Your task to perform on an android device: Search for sushi restaurants on Maps Image 0: 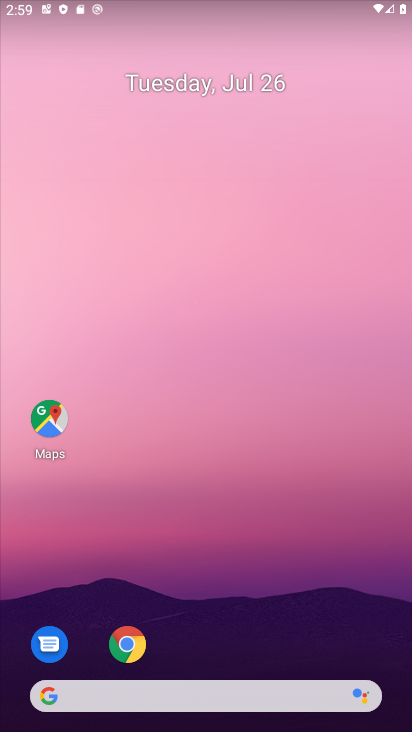
Step 0: click (44, 414)
Your task to perform on an android device: Search for sushi restaurants on Maps Image 1: 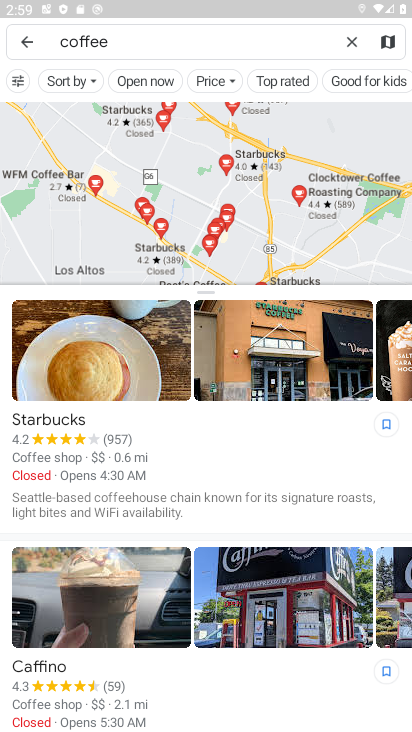
Step 1: click (20, 38)
Your task to perform on an android device: Search for sushi restaurants on Maps Image 2: 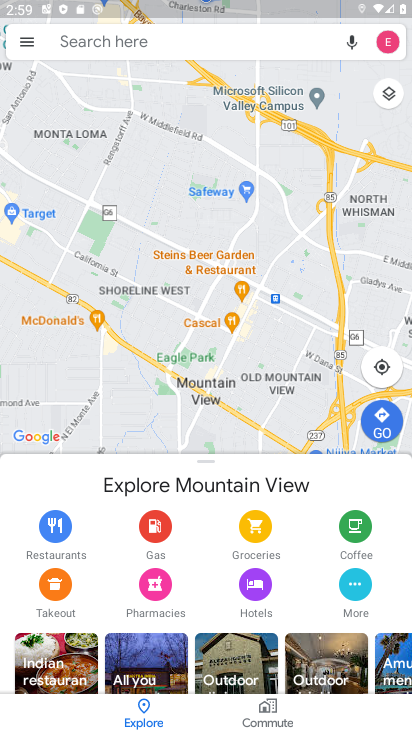
Step 2: type "sushi restaurants"
Your task to perform on an android device: Search for sushi restaurants on Maps Image 3: 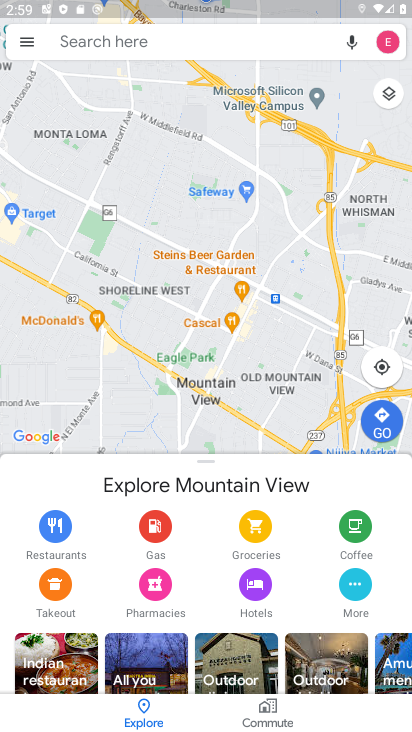
Step 3: click (124, 48)
Your task to perform on an android device: Search for sushi restaurants on Maps Image 4: 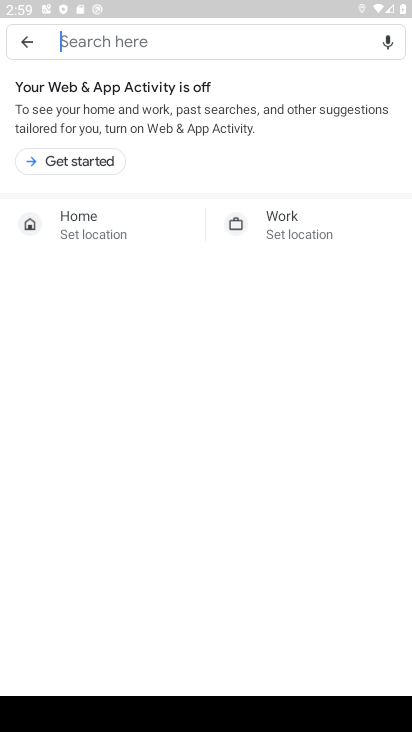
Step 4: click (139, 34)
Your task to perform on an android device: Search for sushi restaurants on Maps Image 5: 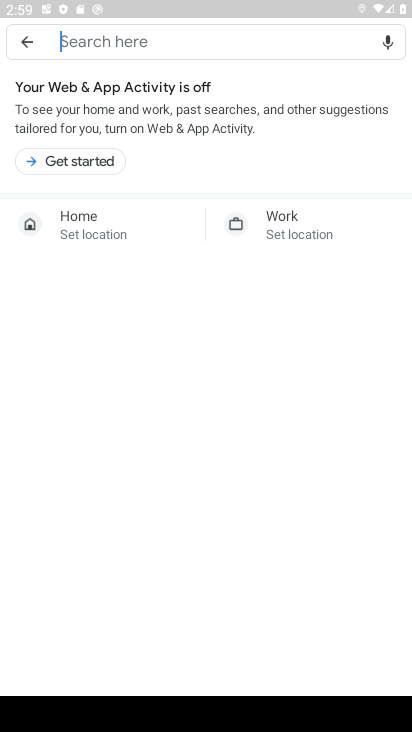
Step 5: type "sushi restaurants"
Your task to perform on an android device: Search for sushi restaurants on Maps Image 6: 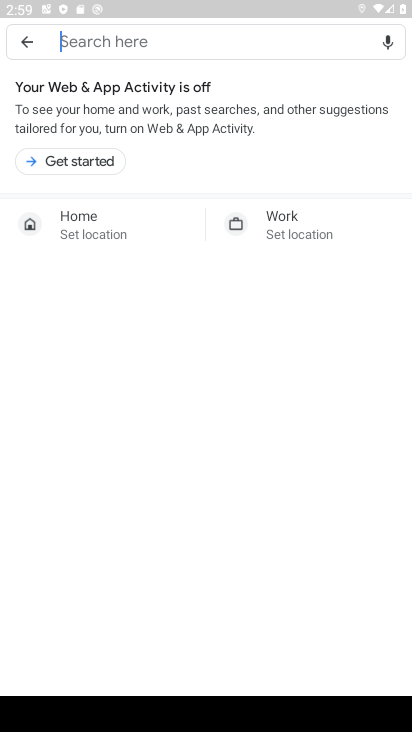
Step 6: click (92, 36)
Your task to perform on an android device: Search for sushi restaurants on Maps Image 7: 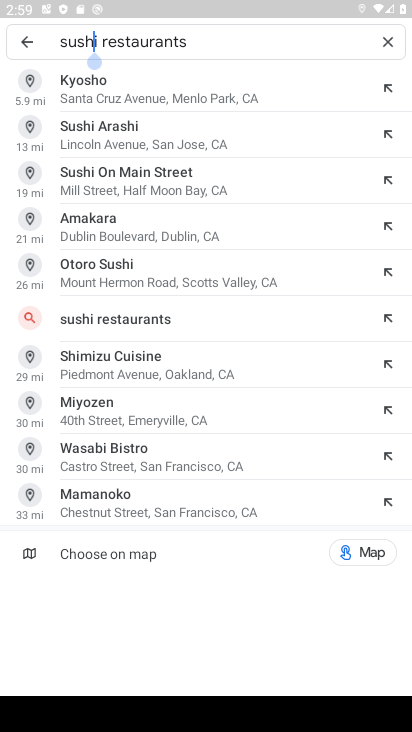
Step 7: press enter
Your task to perform on an android device: Search for sushi restaurants on Maps Image 8: 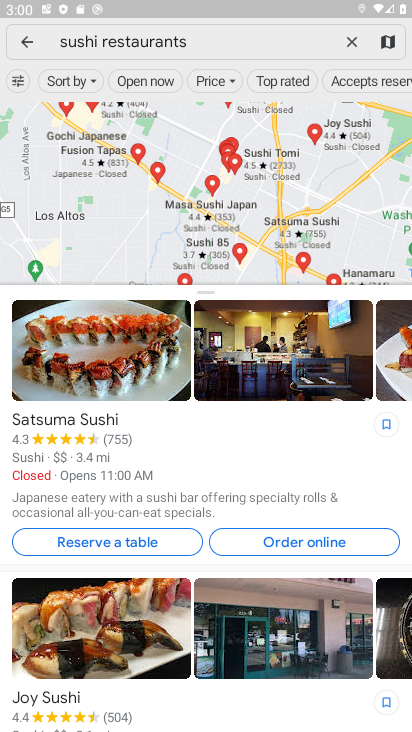
Step 8: task complete